Your task to perform on an android device: When is my next appointment? Image 0: 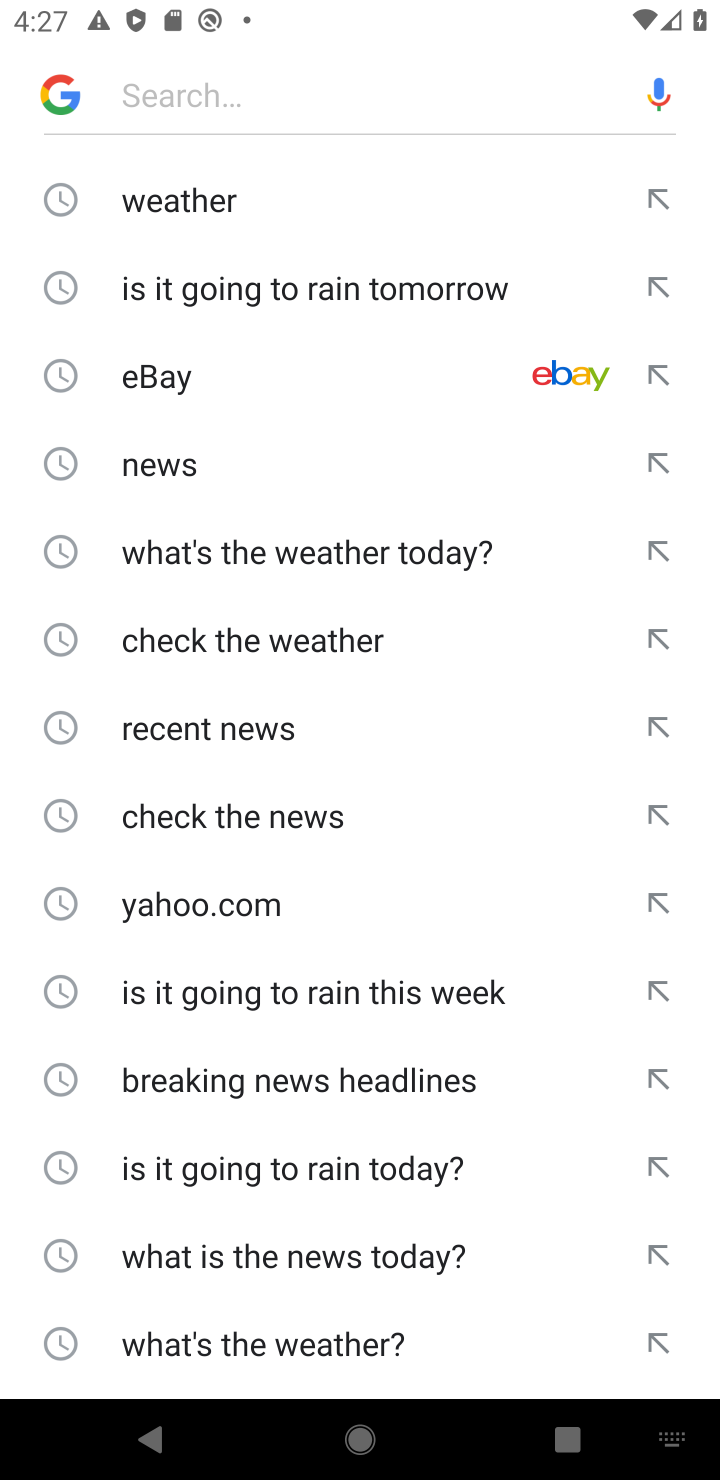
Step 0: press home button
Your task to perform on an android device: When is my next appointment? Image 1: 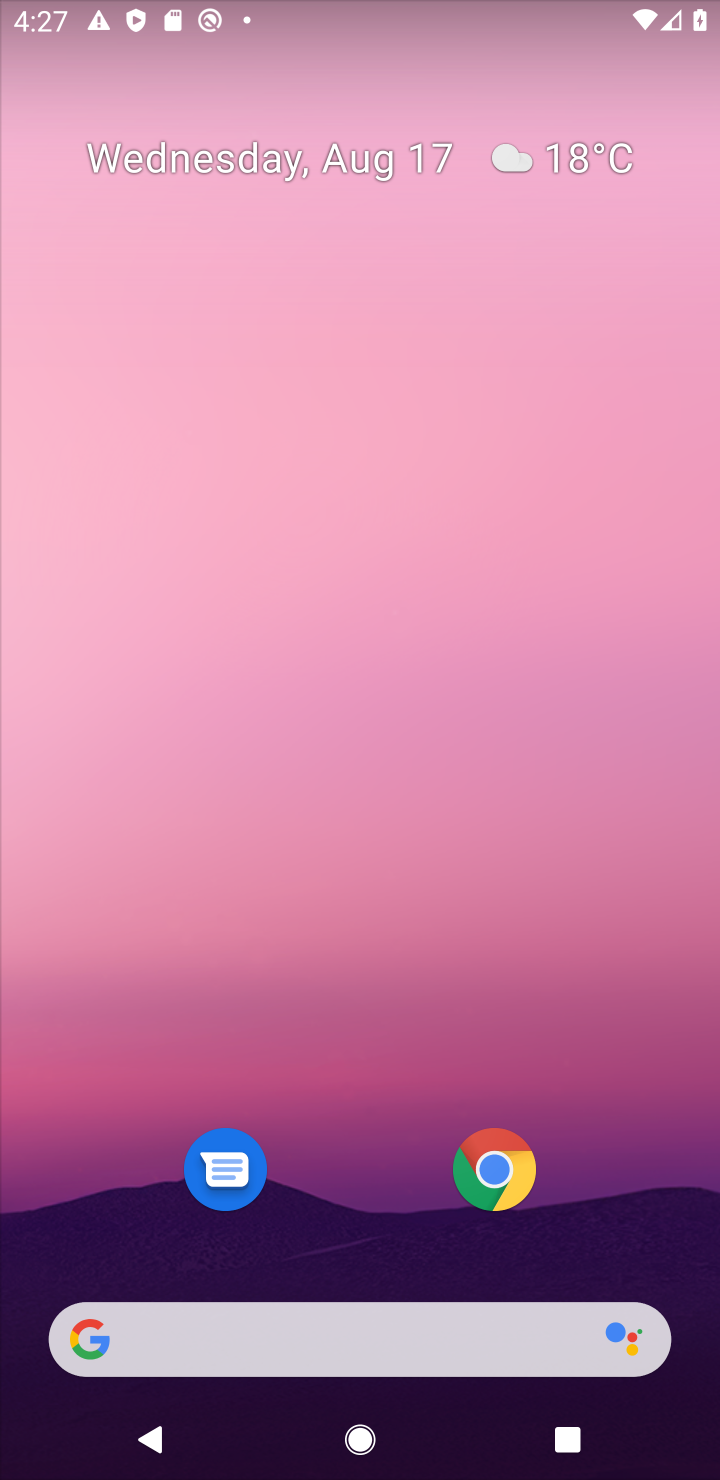
Step 1: drag from (391, 999) to (489, 252)
Your task to perform on an android device: When is my next appointment? Image 2: 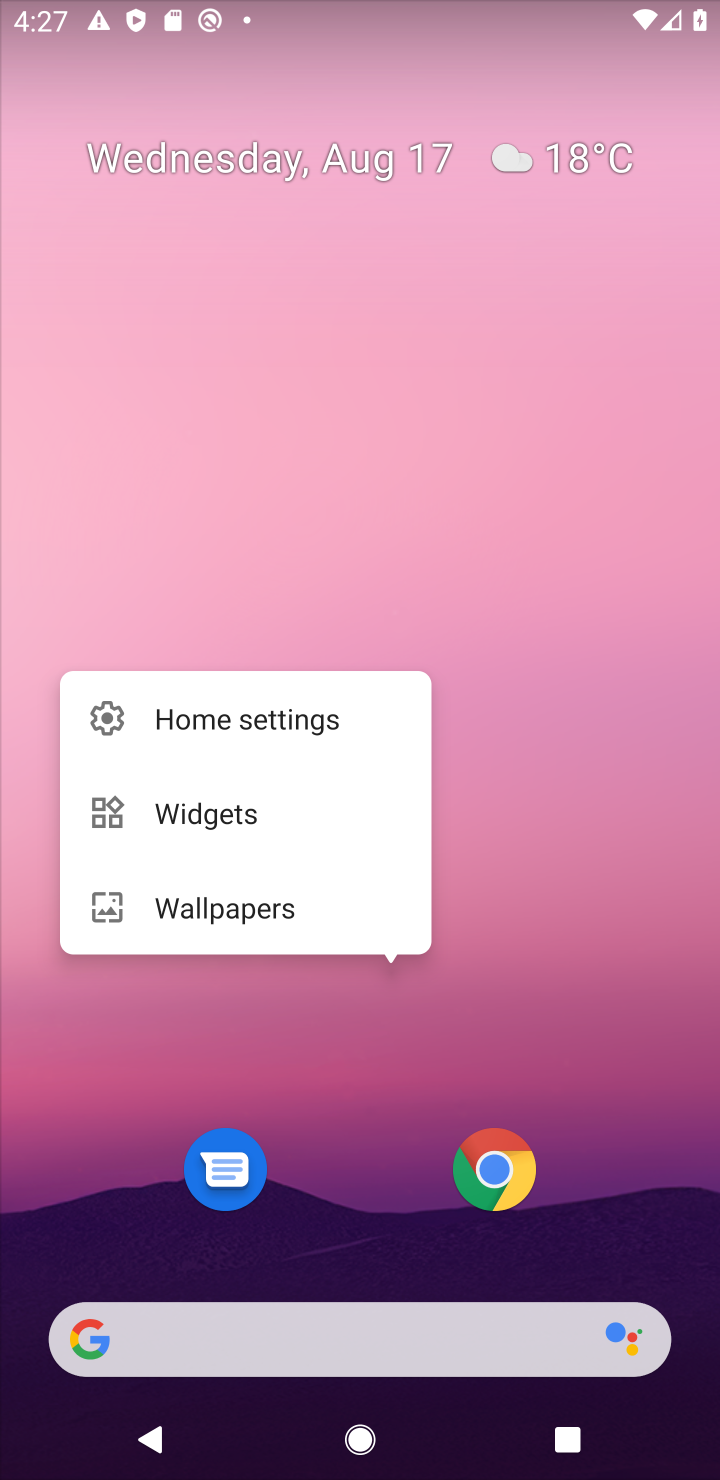
Step 2: click (78, 653)
Your task to perform on an android device: When is my next appointment? Image 3: 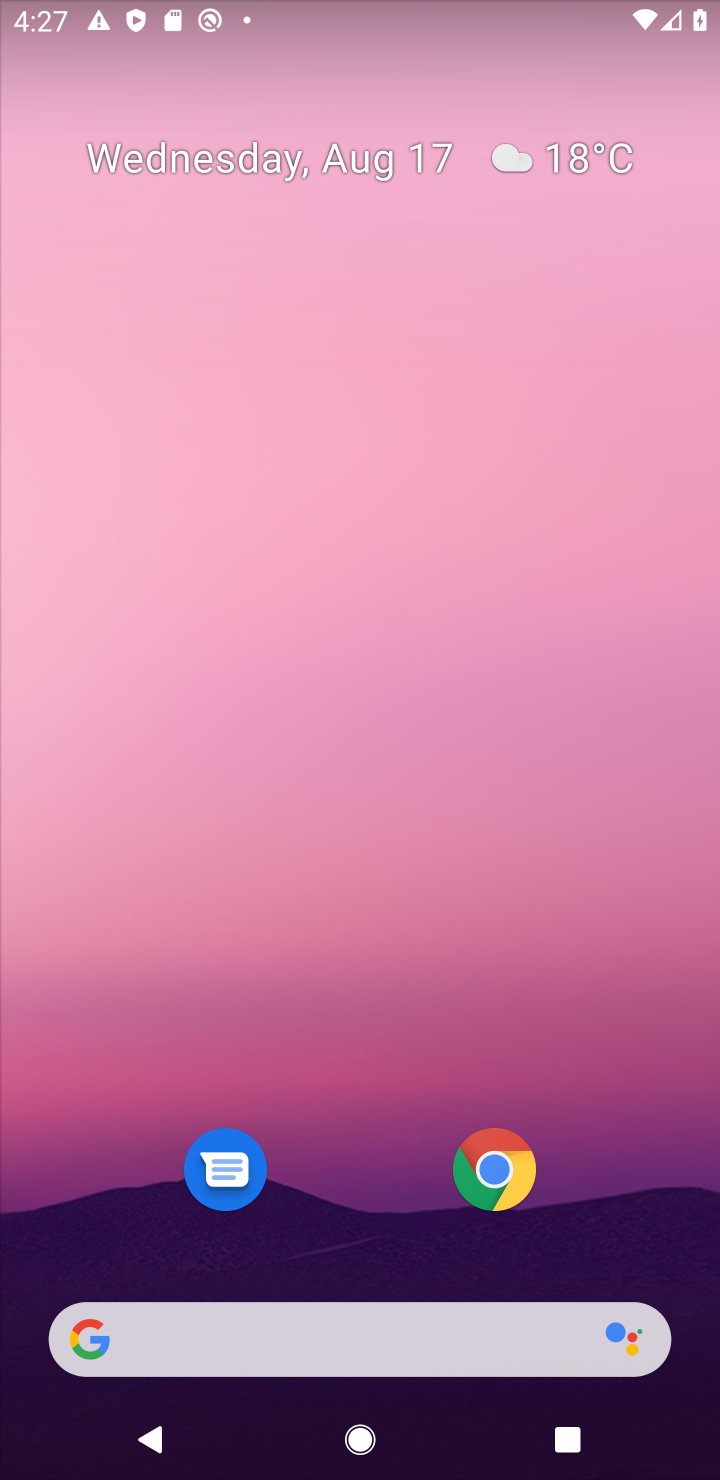
Step 3: click (516, 480)
Your task to perform on an android device: When is my next appointment? Image 4: 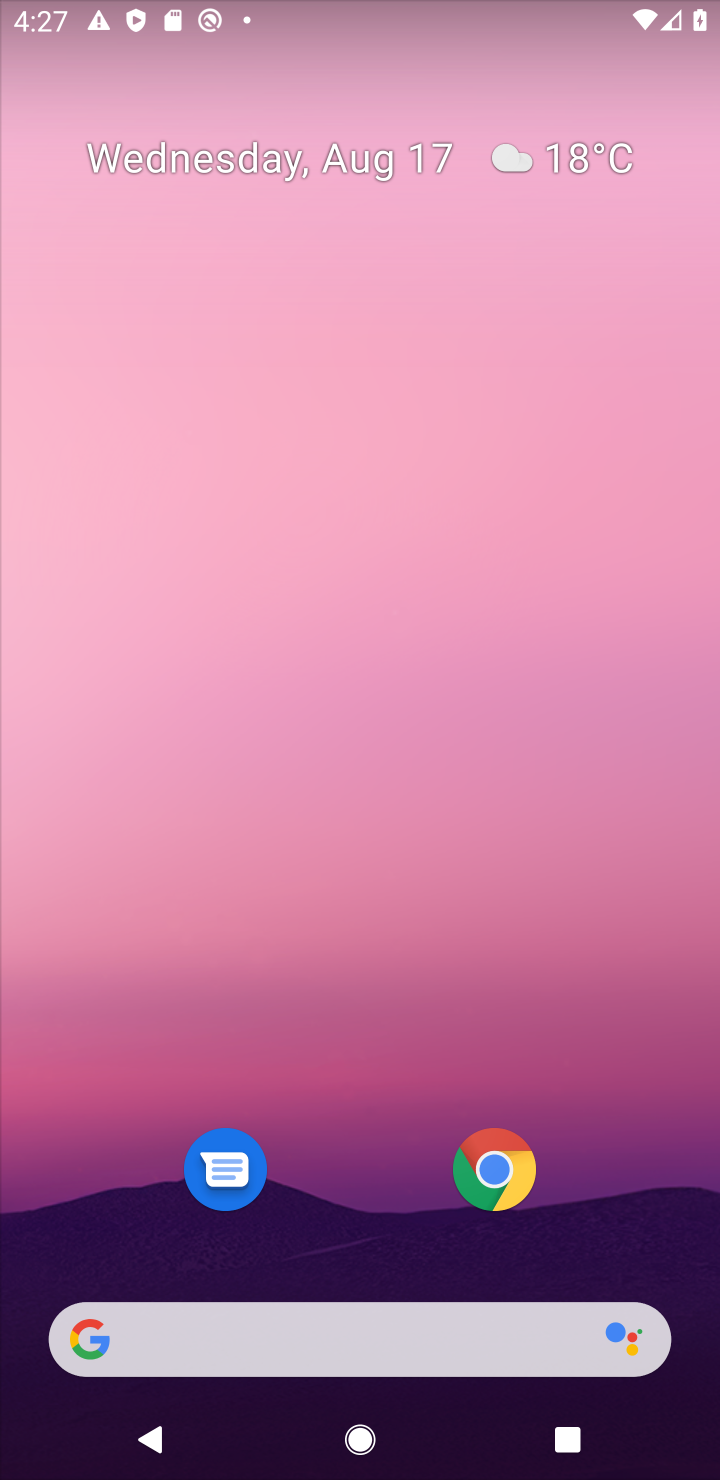
Step 4: drag from (324, 1252) to (473, 102)
Your task to perform on an android device: When is my next appointment? Image 5: 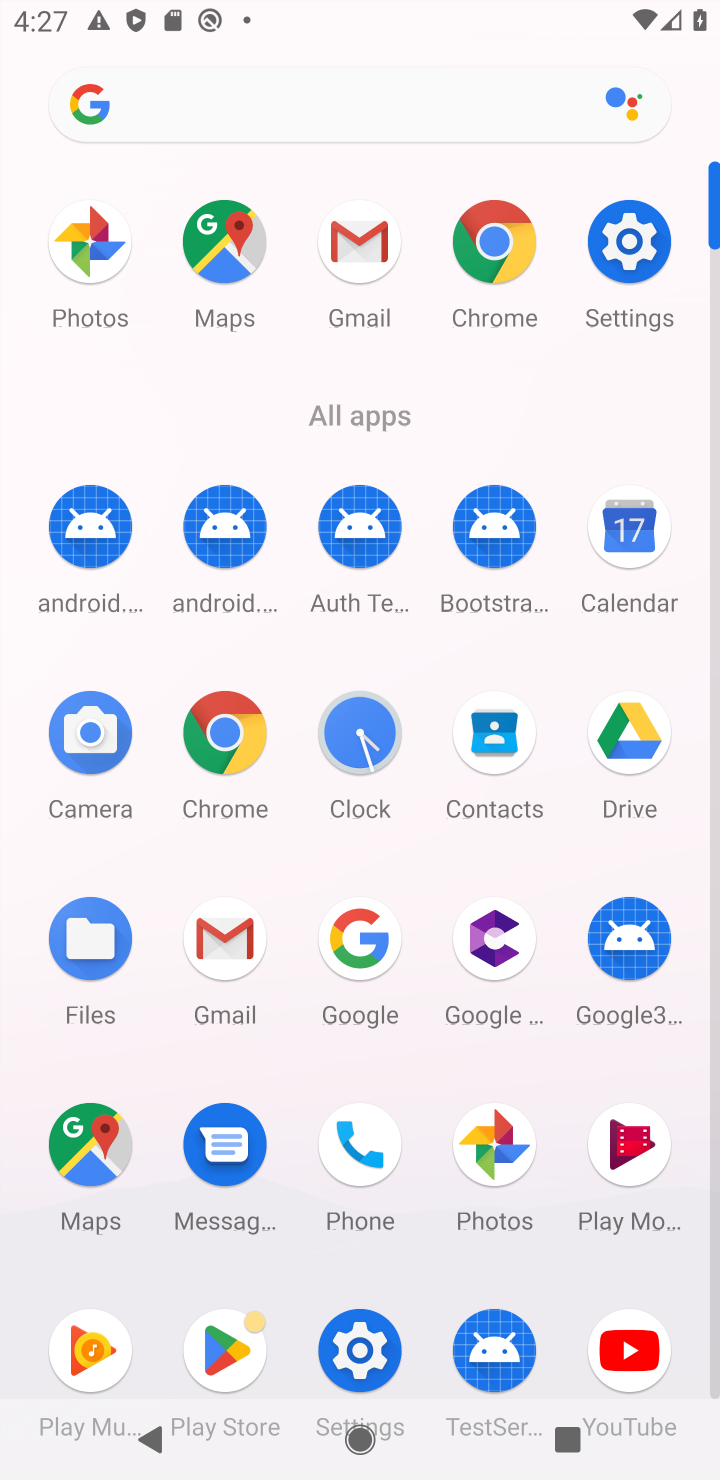
Step 5: click (620, 521)
Your task to perform on an android device: When is my next appointment? Image 6: 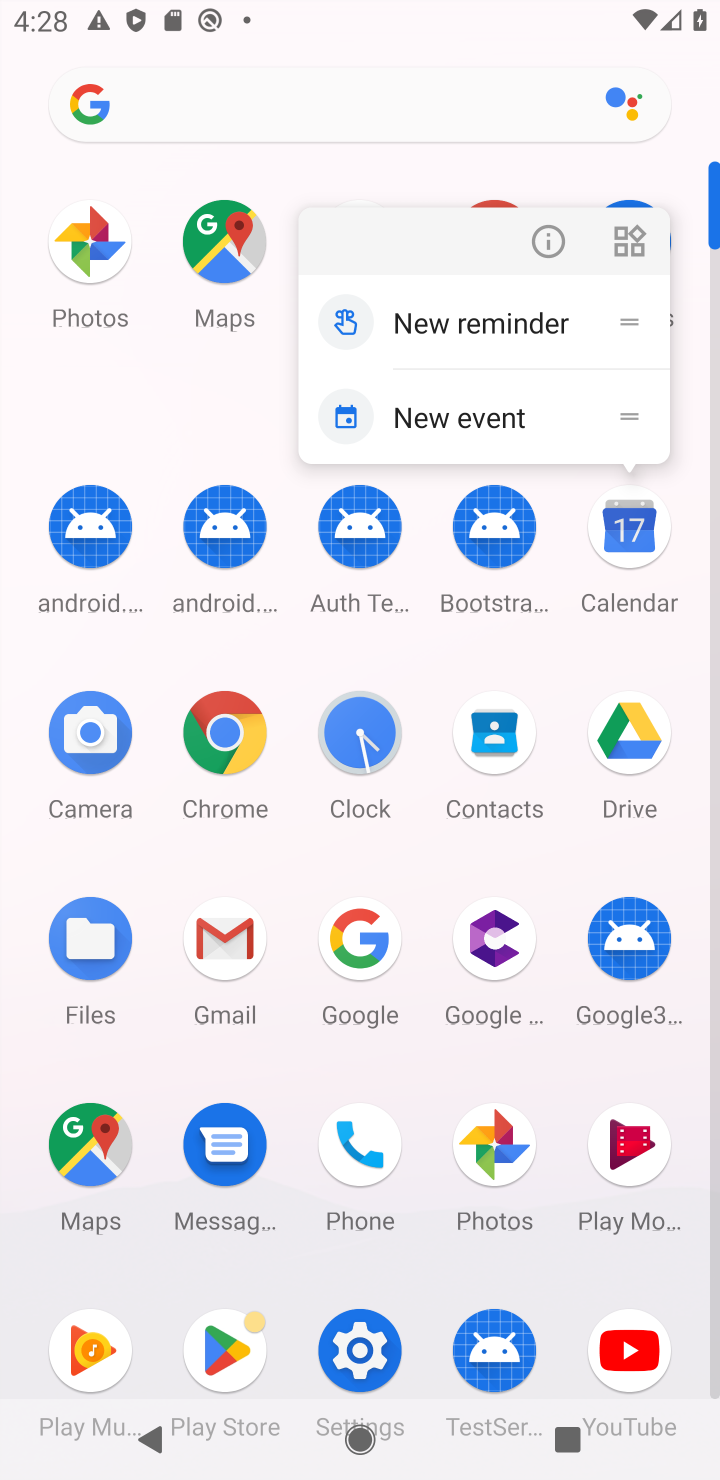
Step 6: click (623, 583)
Your task to perform on an android device: When is my next appointment? Image 7: 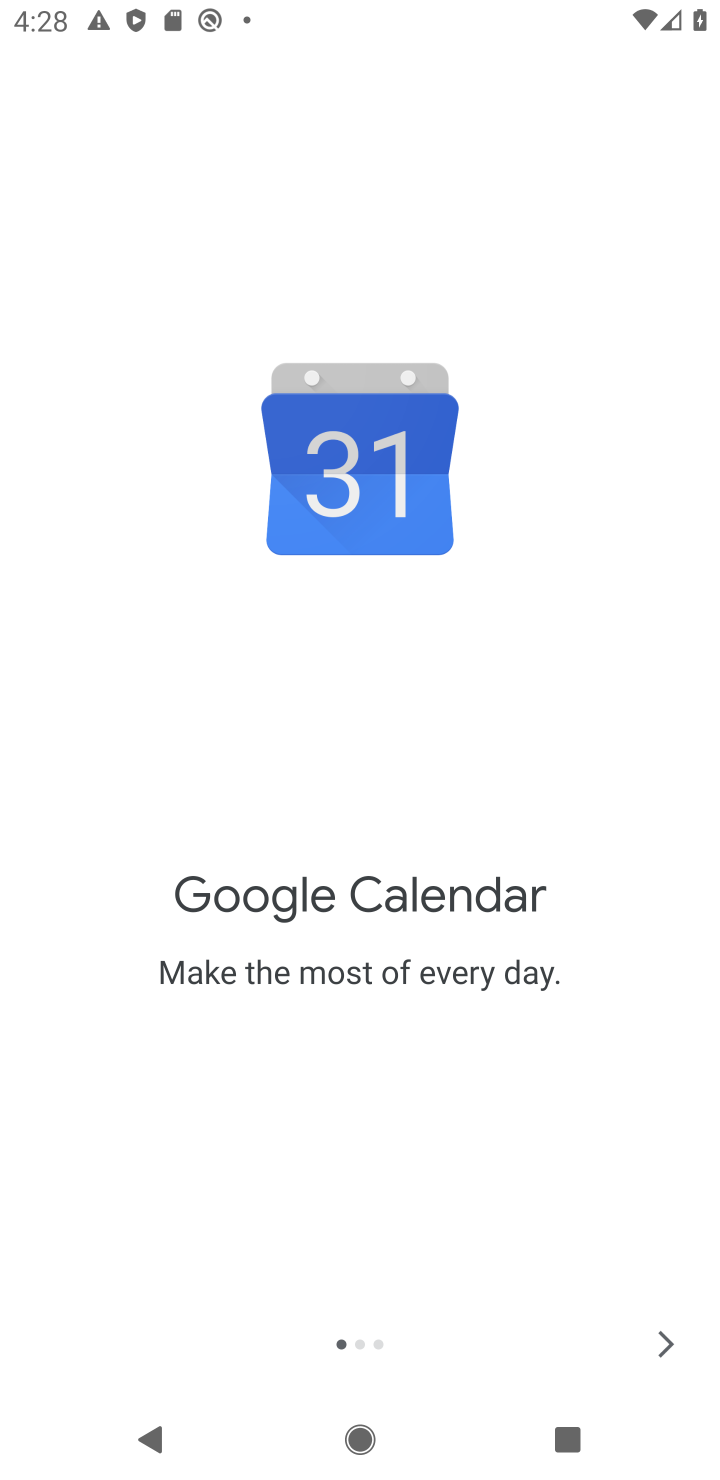
Step 7: click (656, 1349)
Your task to perform on an android device: When is my next appointment? Image 8: 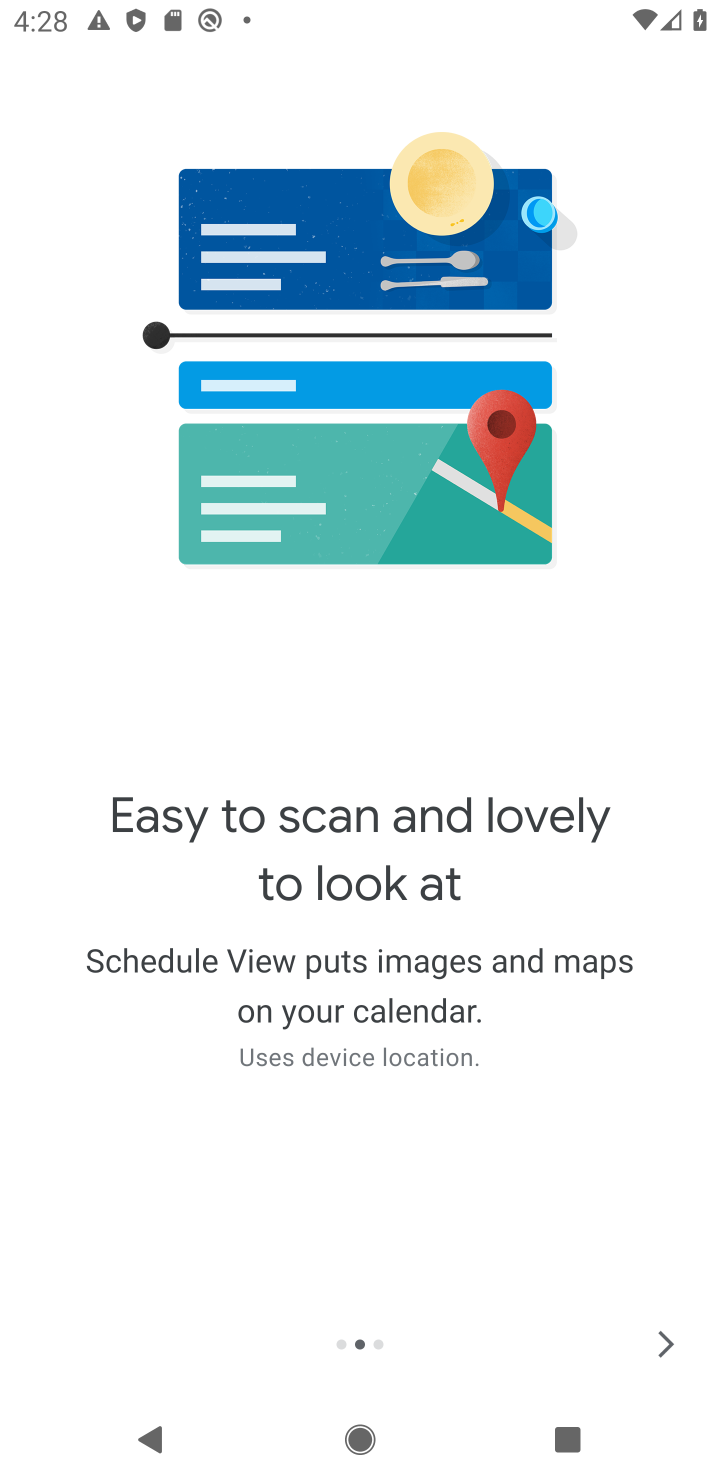
Step 8: click (661, 1342)
Your task to perform on an android device: When is my next appointment? Image 9: 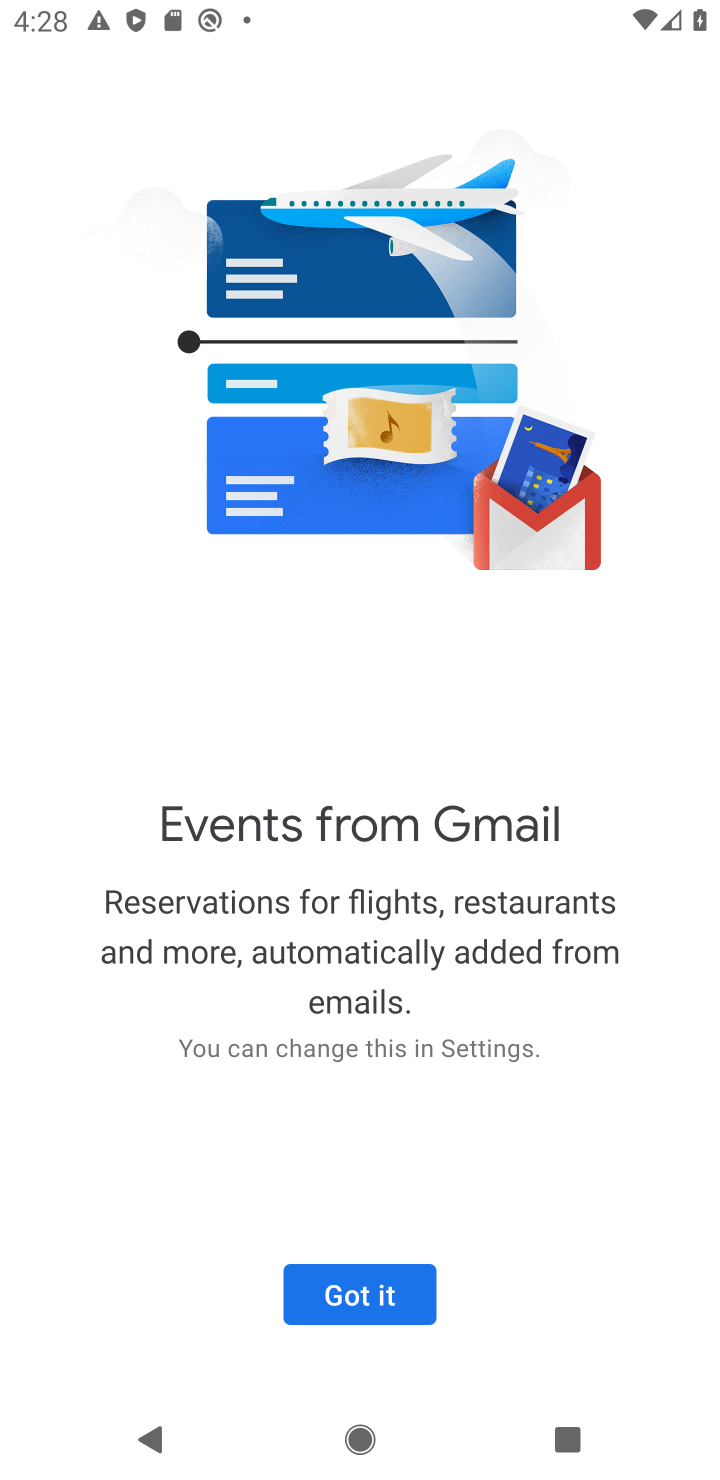
Step 9: click (391, 1297)
Your task to perform on an android device: When is my next appointment? Image 10: 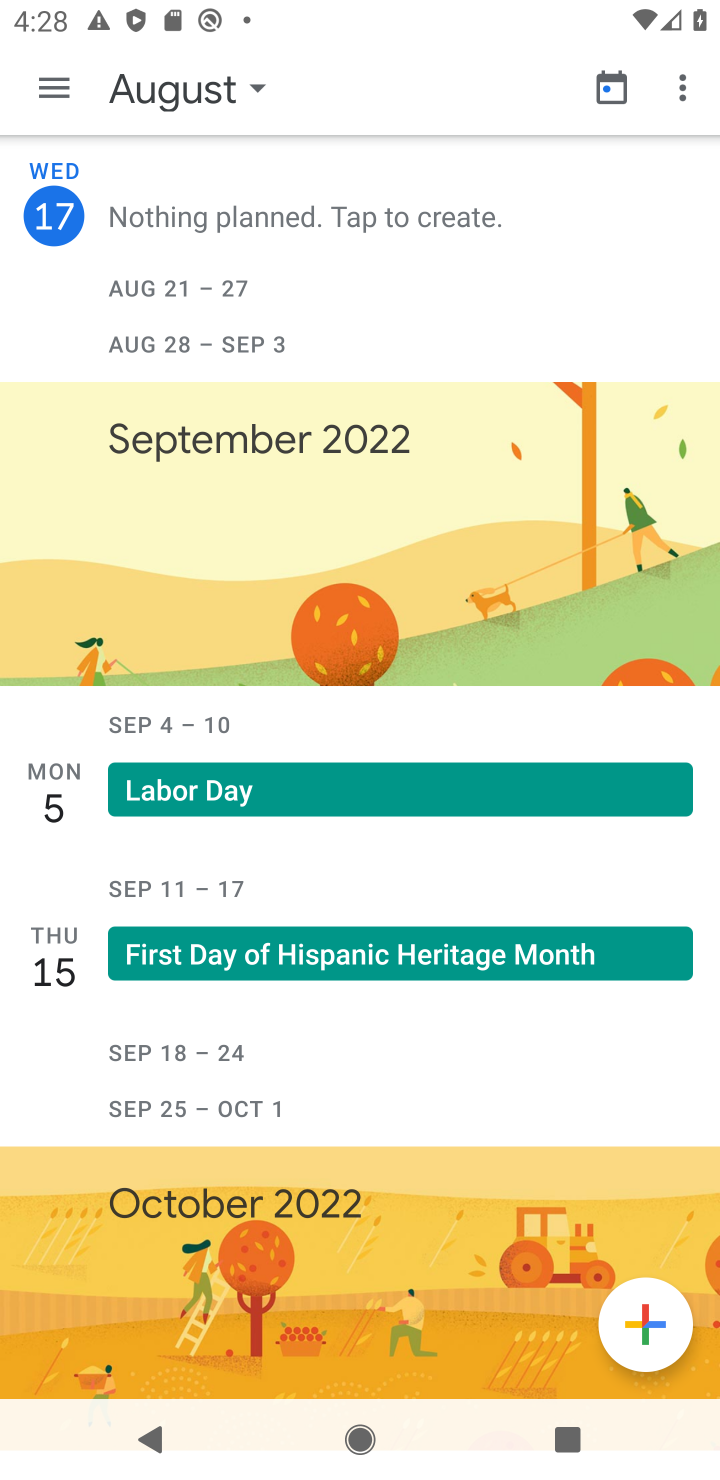
Step 10: click (182, 110)
Your task to perform on an android device: When is my next appointment? Image 11: 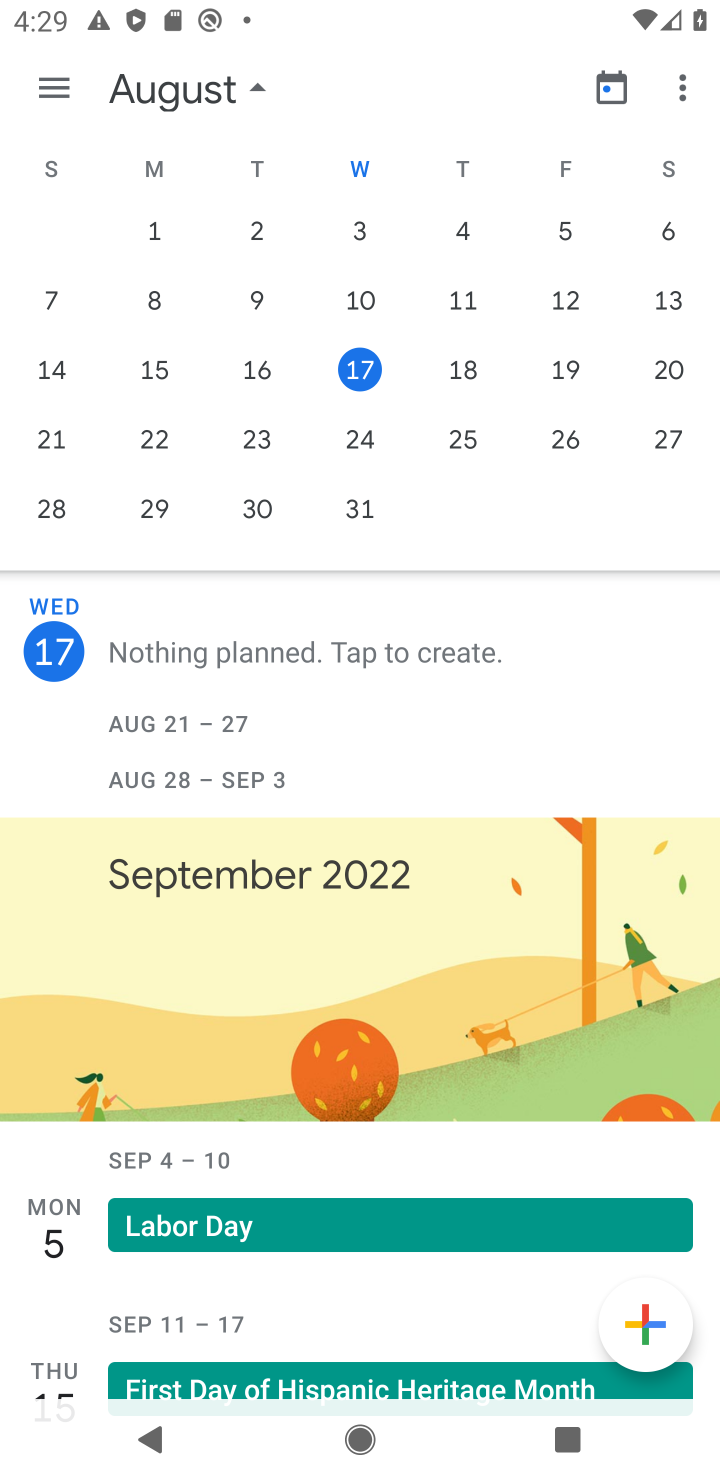
Step 11: task complete